Your task to perform on an android device: open app "Spotify" Image 0: 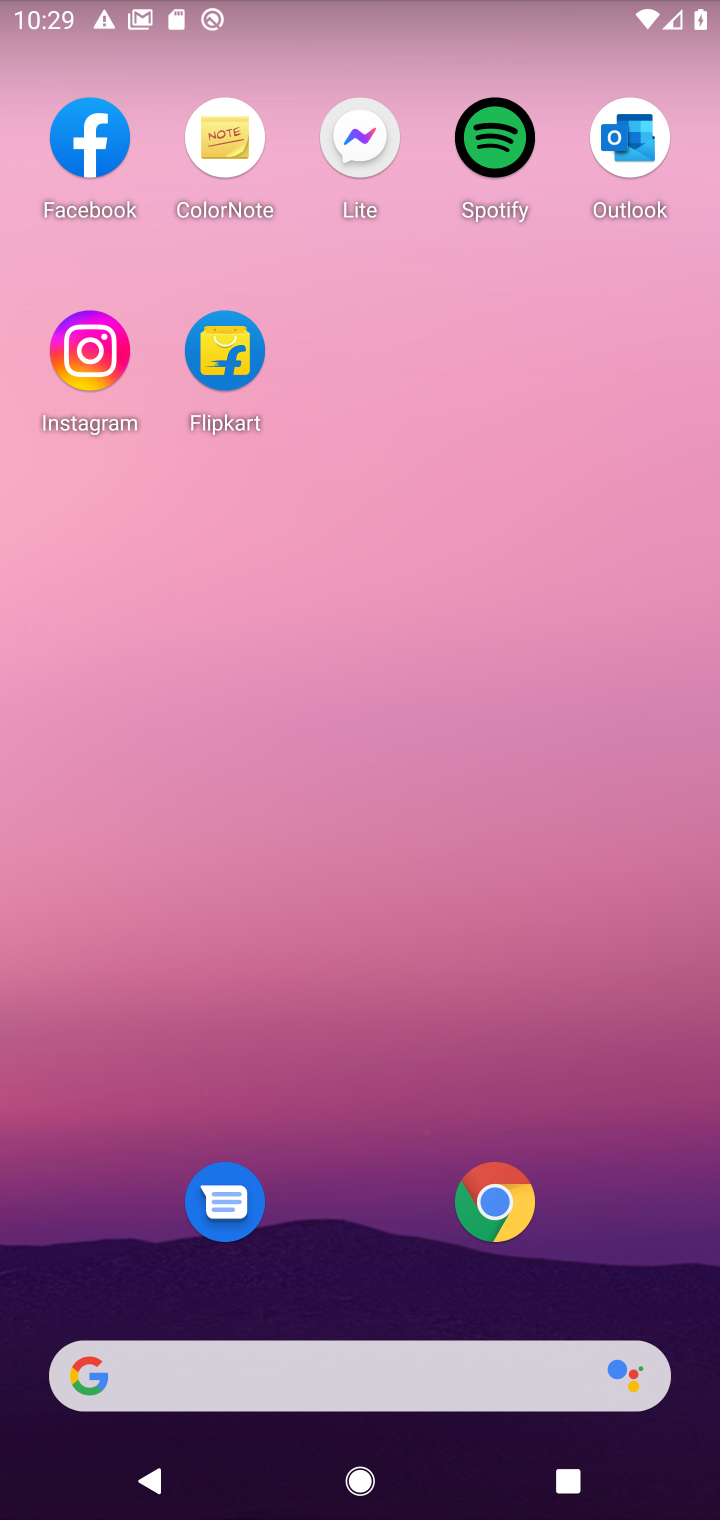
Step 0: click (497, 157)
Your task to perform on an android device: open app "Spotify" Image 1: 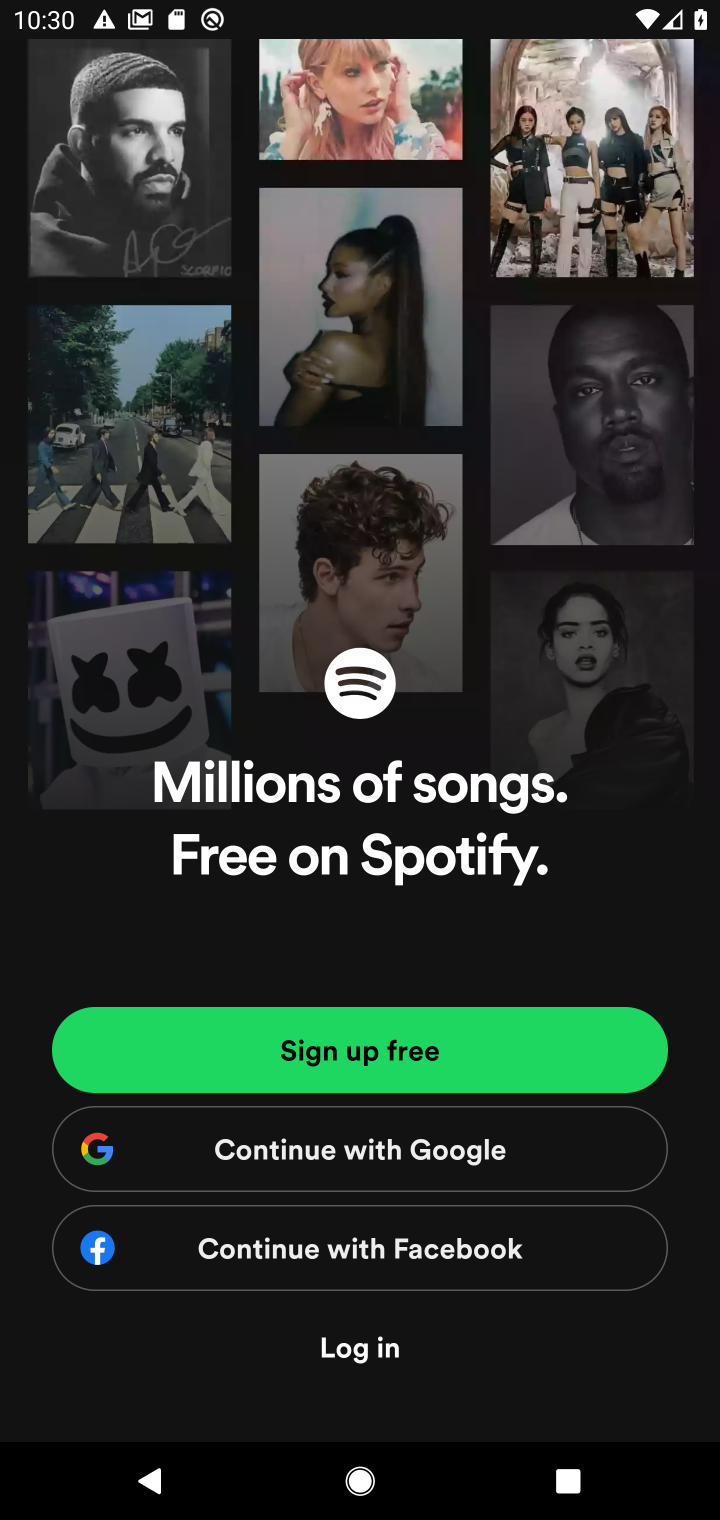
Step 1: task complete